Your task to perform on an android device: open device folders in google photos Image 0: 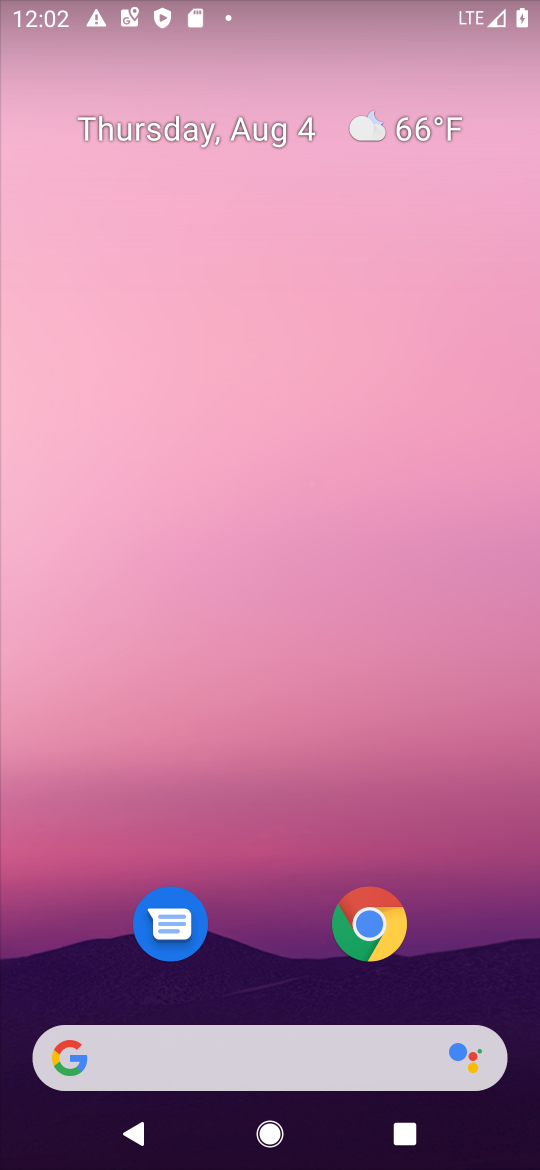
Step 0: drag from (68, 1050) to (355, 9)
Your task to perform on an android device: open device folders in google photos Image 1: 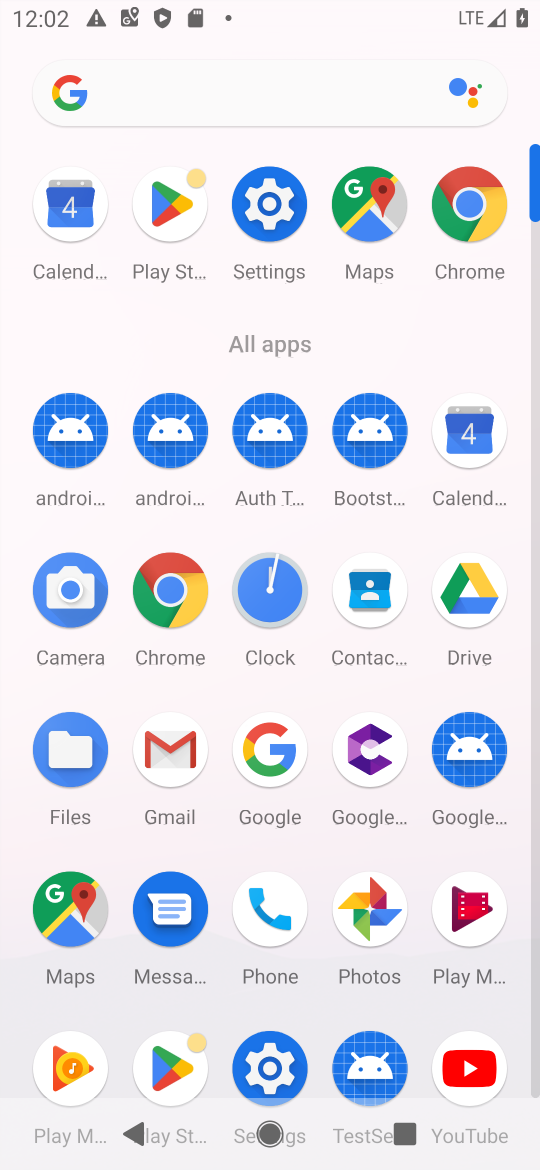
Step 1: click (351, 912)
Your task to perform on an android device: open device folders in google photos Image 2: 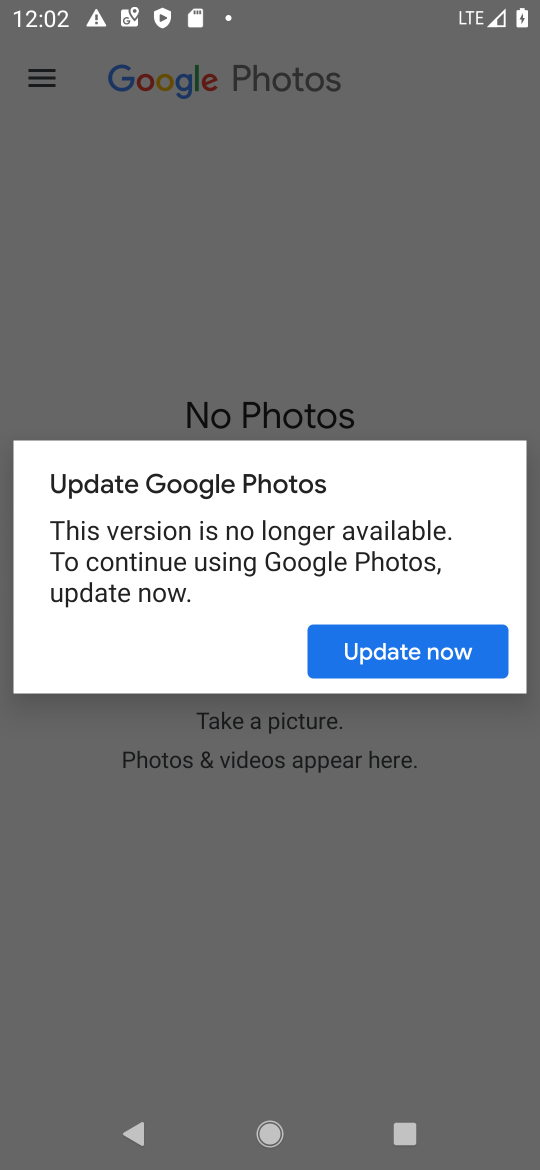
Step 2: click (398, 640)
Your task to perform on an android device: open device folders in google photos Image 3: 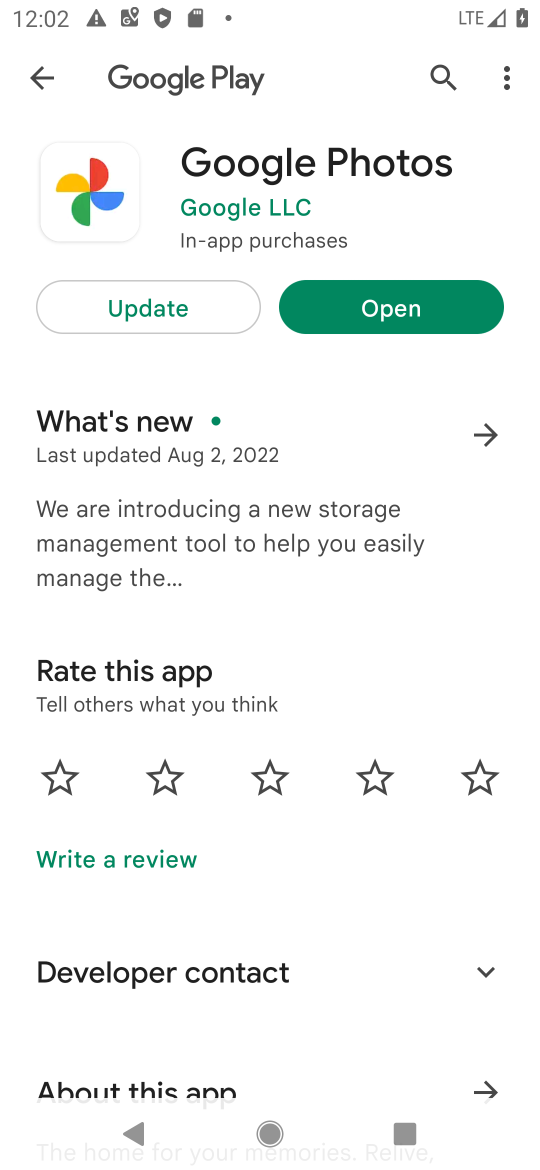
Step 3: click (368, 303)
Your task to perform on an android device: open device folders in google photos Image 4: 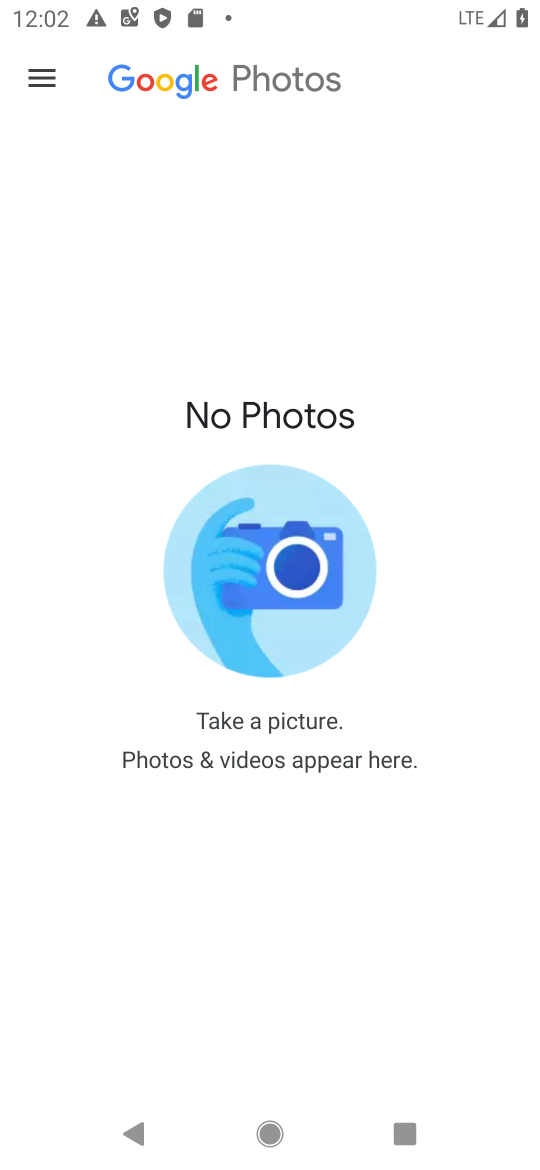
Step 4: click (35, 70)
Your task to perform on an android device: open device folders in google photos Image 5: 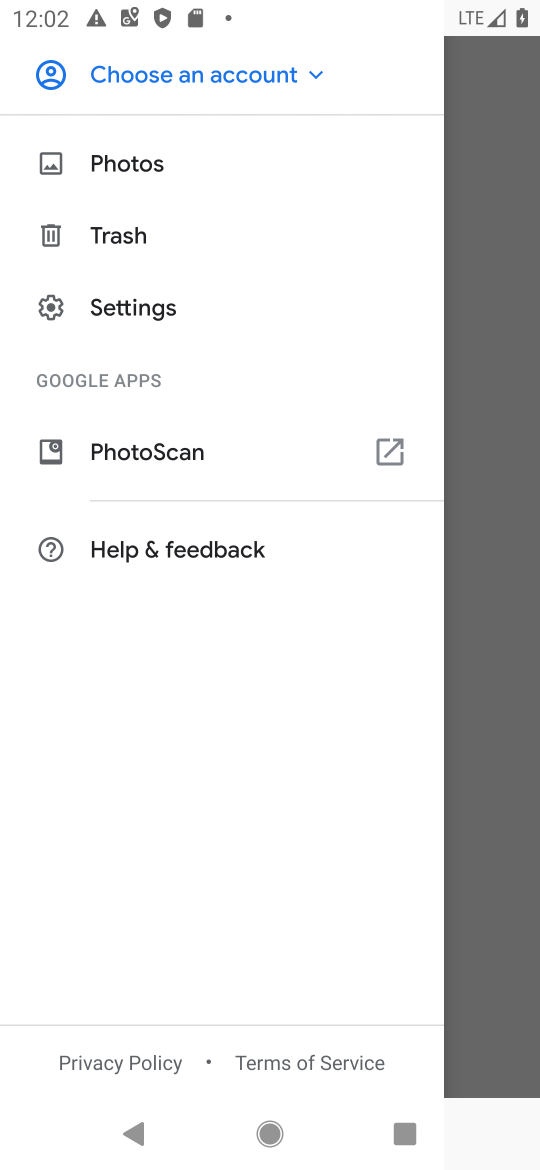
Step 5: click (468, 544)
Your task to perform on an android device: open device folders in google photos Image 6: 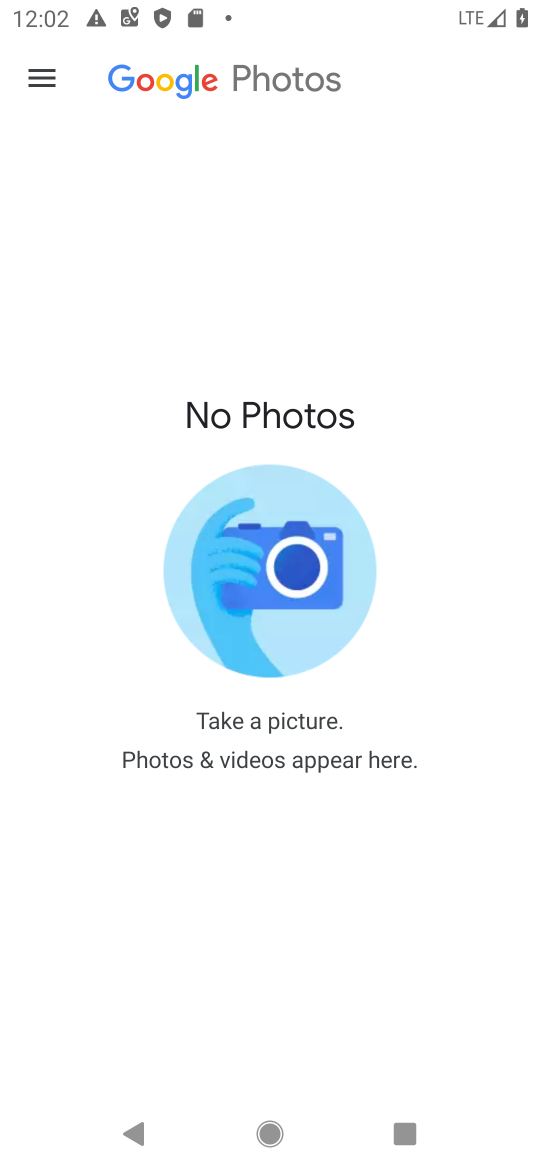
Step 6: task complete